Your task to perform on an android device: Search for "panasonic triple a" on costco.com, select the first entry, and add it to the cart. Image 0: 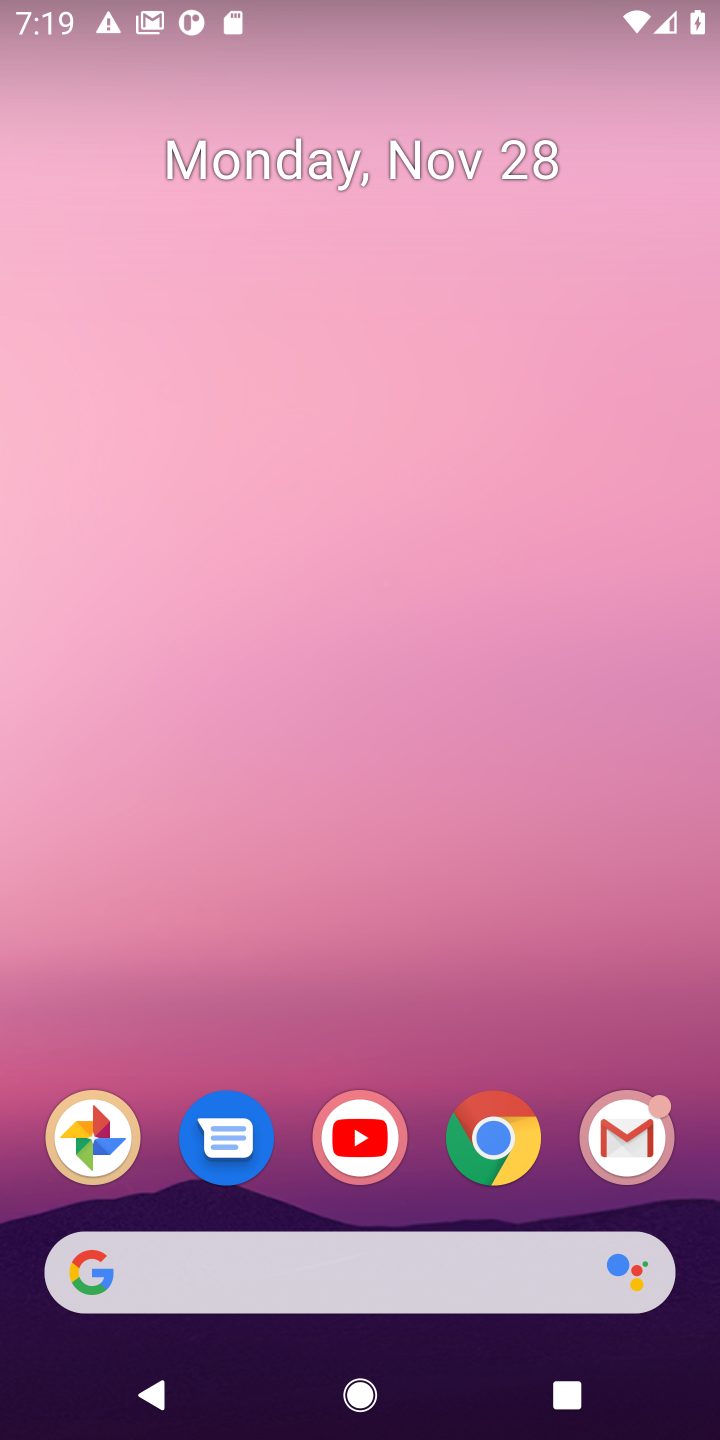
Step 0: click (497, 1146)
Your task to perform on an android device: Search for "panasonic triple a" on costco.com, select the first entry, and add it to the cart. Image 1: 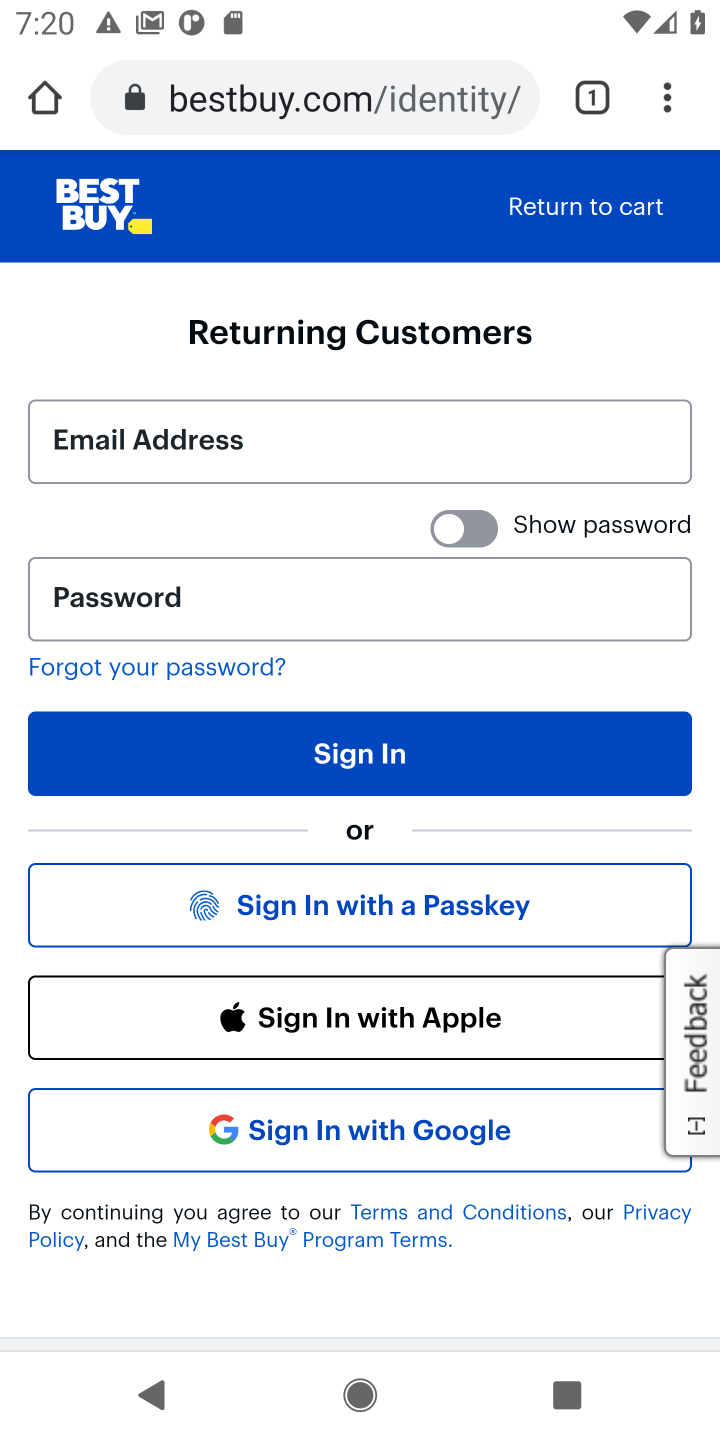
Step 1: click (266, 113)
Your task to perform on an android device: Search for "panasonic triple a" on costco.com, select the first entry, and add it to the cart. Image 2: 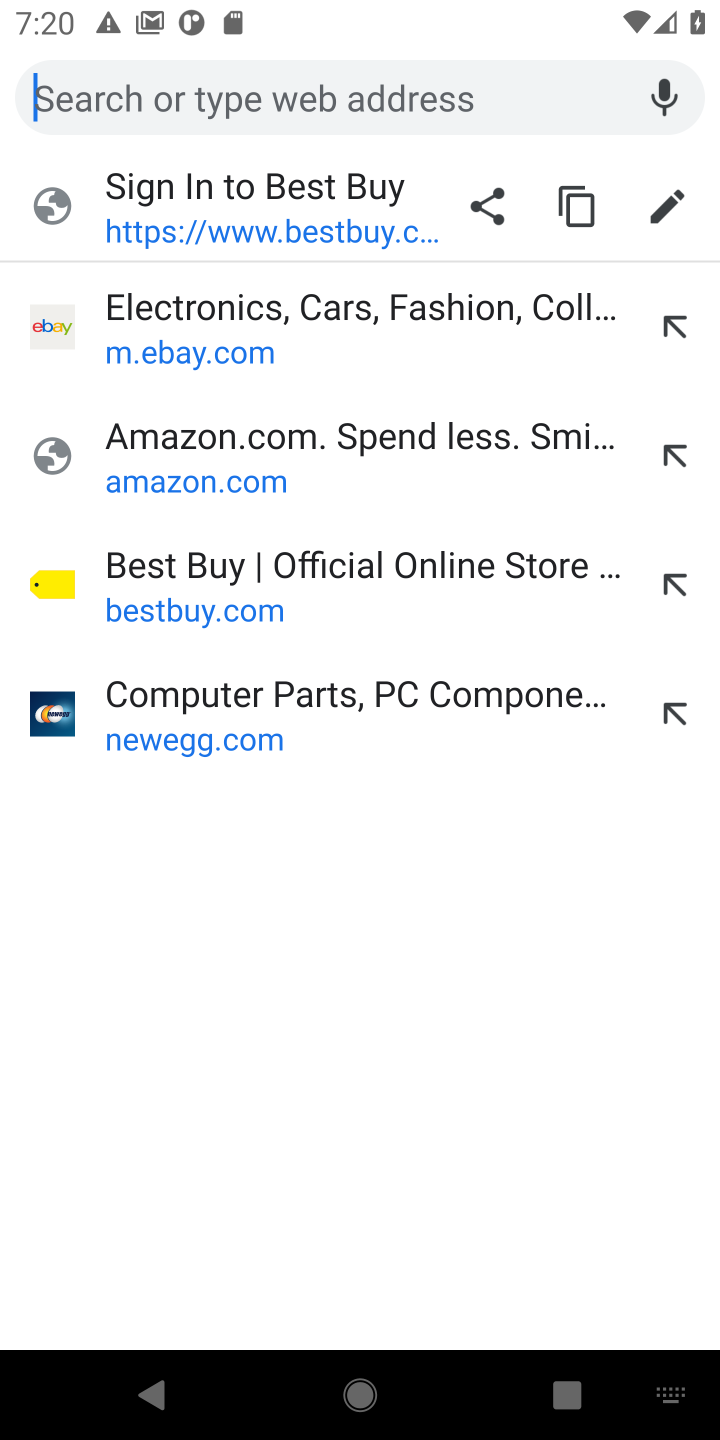
Step 2: type "costco.com"
Your task to perform on an android device: Search for "panasonic triple a" on costco.com, select the first entry, and add it to the cart. Image 3: 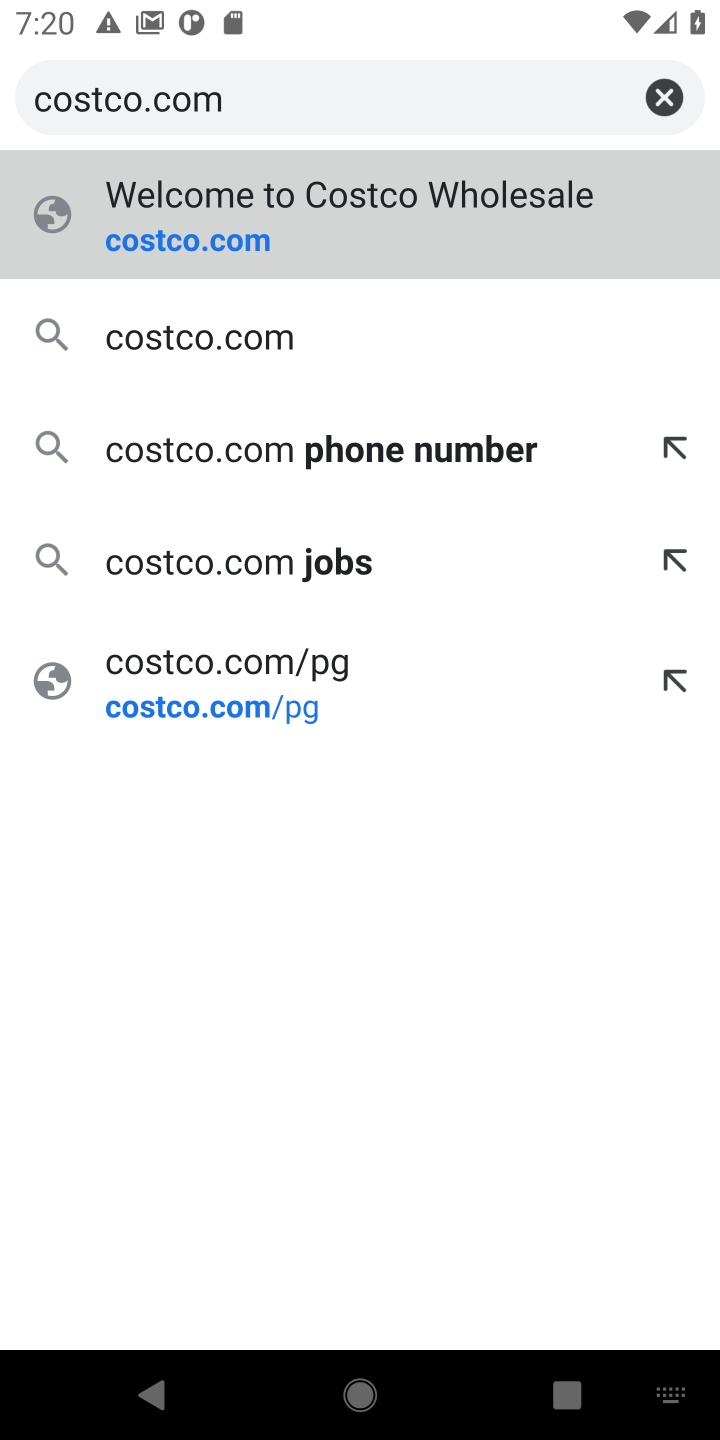
Step 3: click (195, 265)
Your task to perform on an android device: Search for "panasonic triple a" on costco.com, select the first entry, and add it to the cart. Image 4: 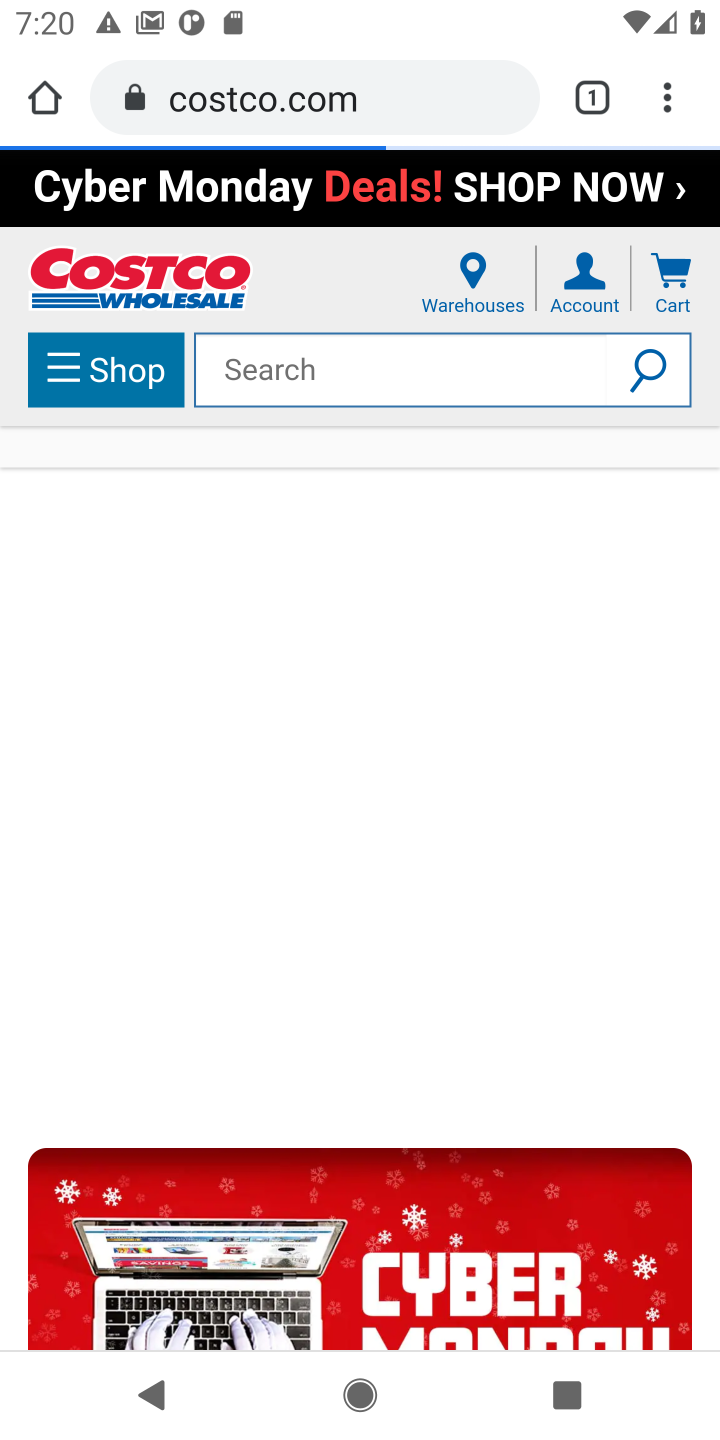
Step 4: click (232, 374)
Your task to perform on an android device: Search for "panasonic triple a" on costco.com, select the first entry, and add it to the cart. Image 5: 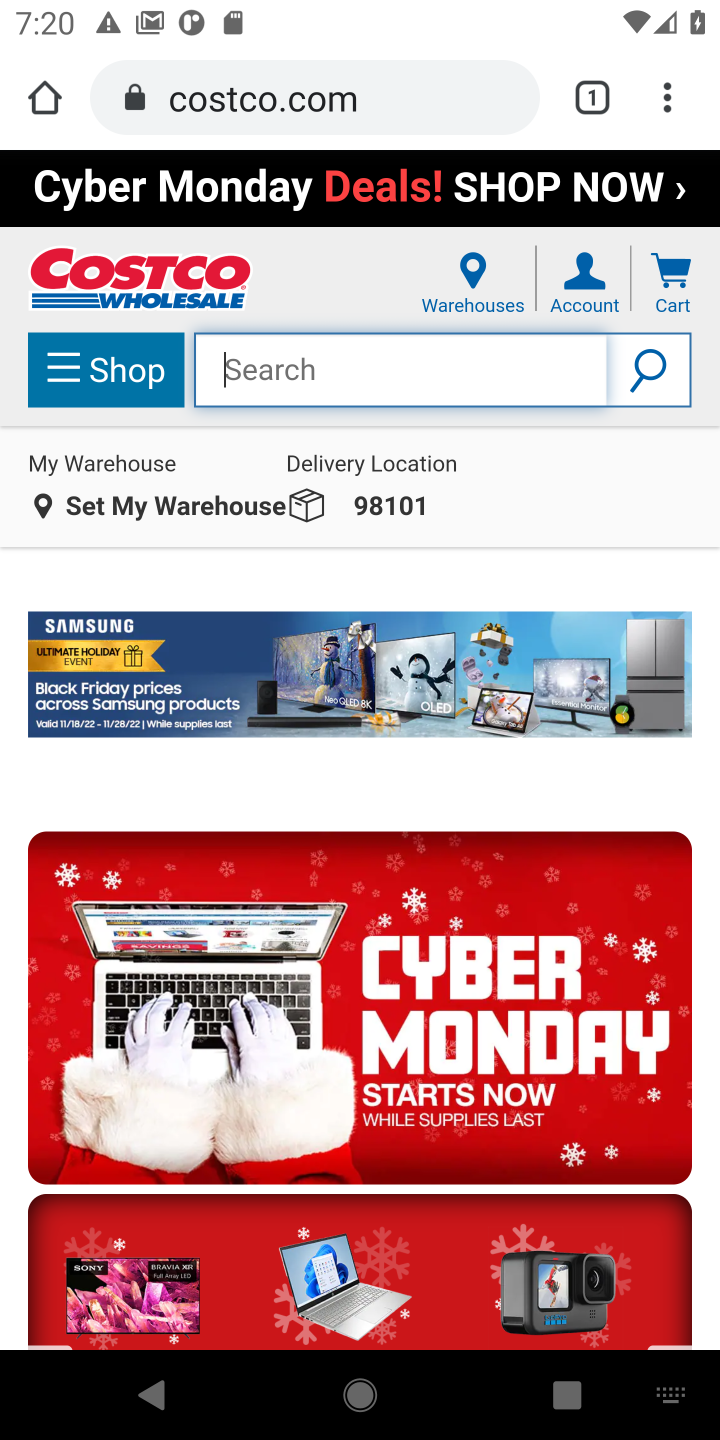
Step 5: type "panasonic triple a"
Your task to perform on an android device: Search for "panasonic triple a" on costco.com, select the first entry, and add it to the cart. Image 6: 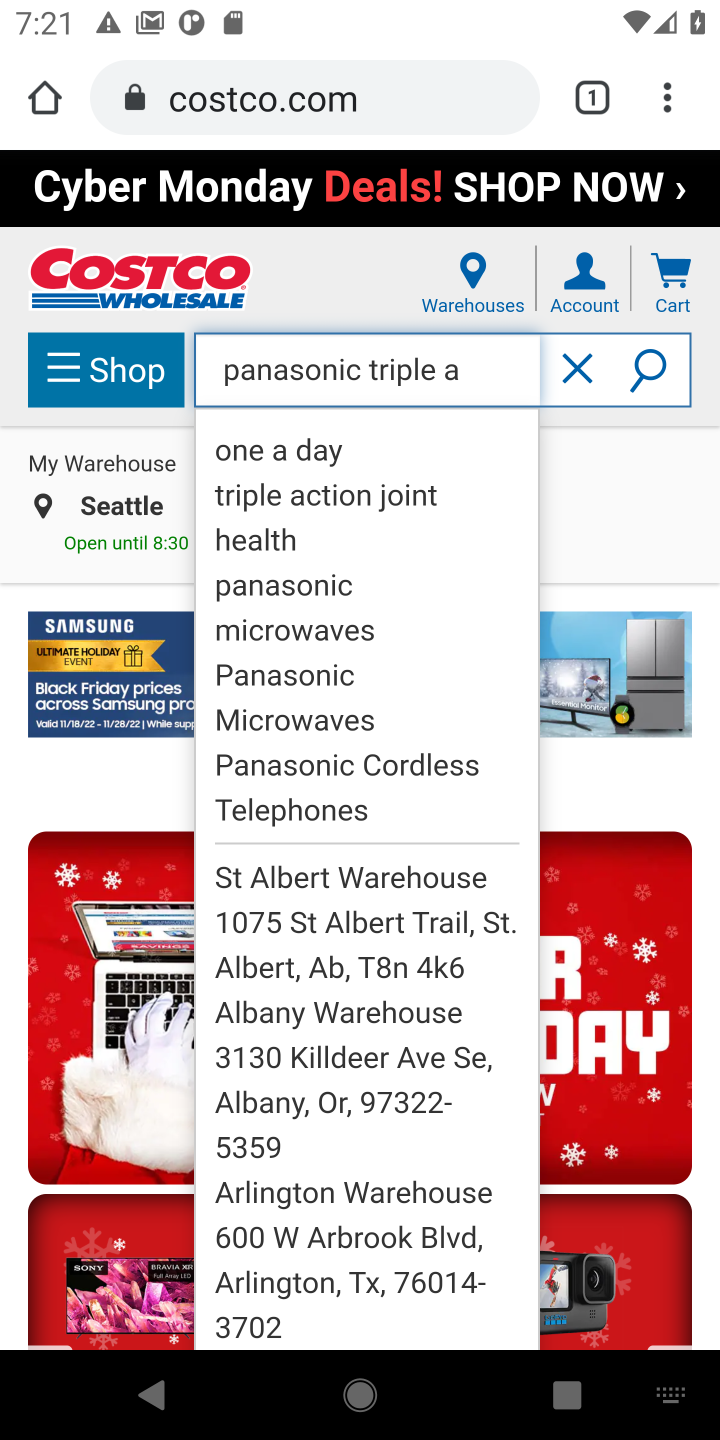
Step 6: click (645, 381)
Your task to perform on an android device: Search for "panasonic triple a" on costco.com, select the first entry, and add it to the cart. Image 7: 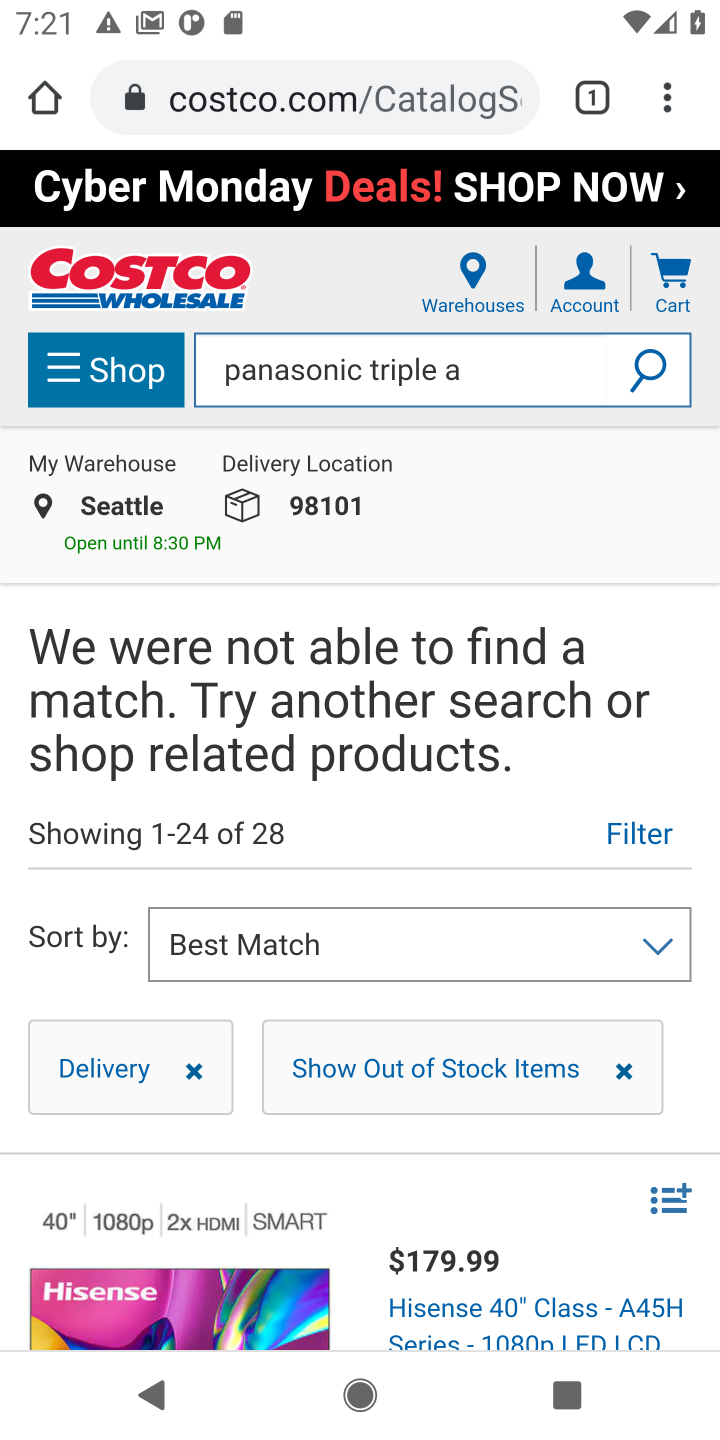
Step 7: task complete